Your task to perform on an android device: open a new tab in the chrome app Image 0: 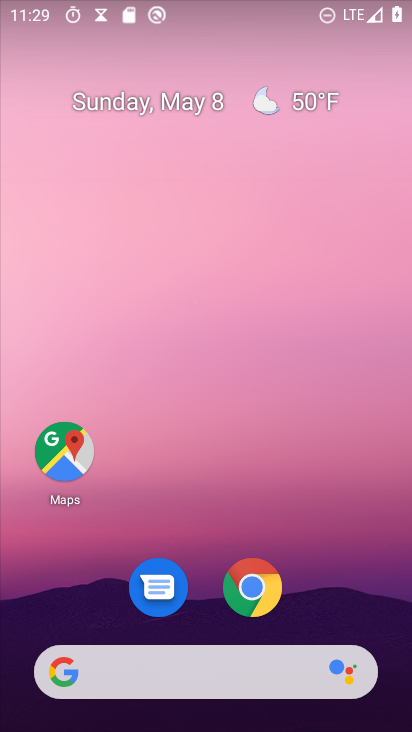
Step 0: click (244, 599)
Your task to perform on an android device: open a new tab in the chrome app Image 1: 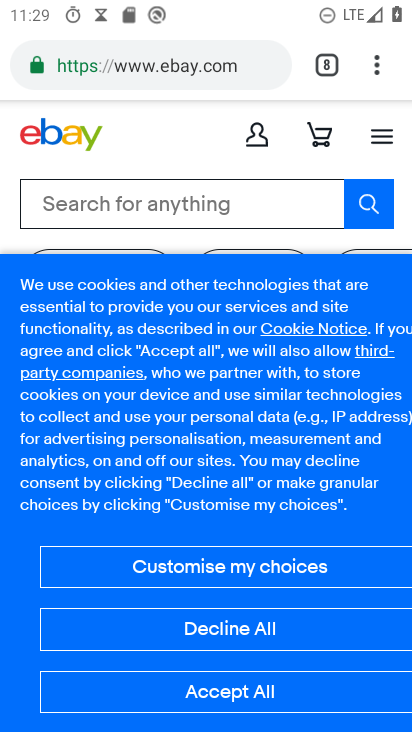
Step 1: task complete